Your task to perform on an android device: empty trash in google photos Image 0: 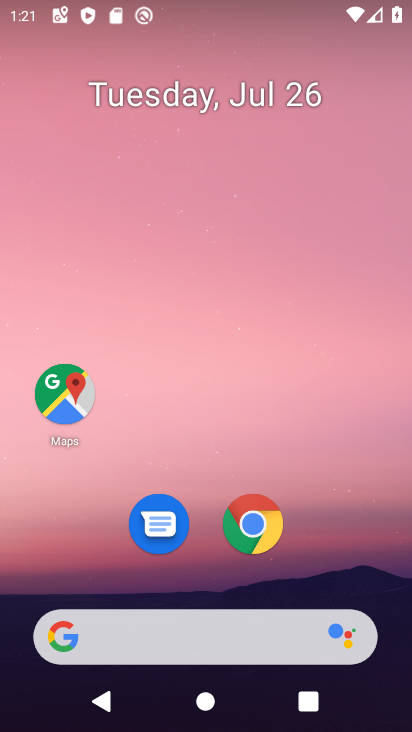
Step 0: press home button
Your task to perform on an android device: empty trash in google photos Image 1: 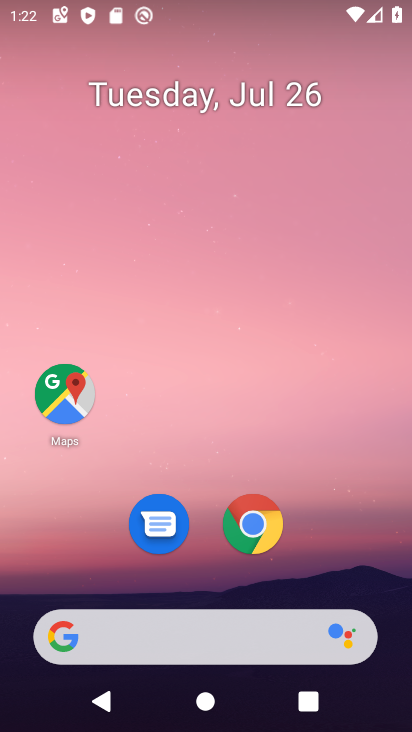
Step 1: drag from (199, 629) to (358, 10)
Your task to perform on an android device: empty trash in google photos Image 2: 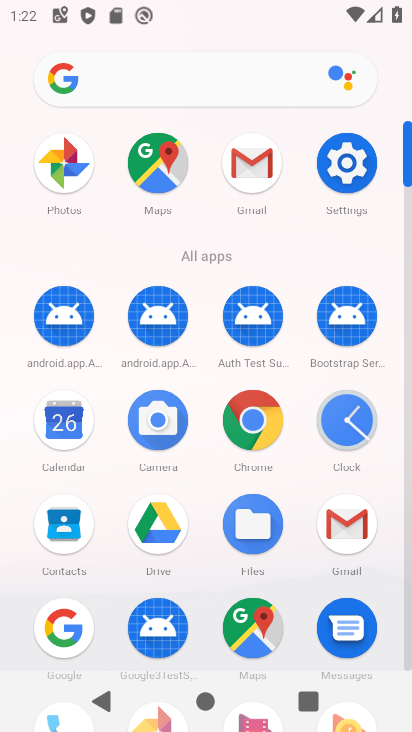
Step 2: drag from (215, 493) to (327, 105)
Your task to perform on an android device: empty trash in google photos Image 3: 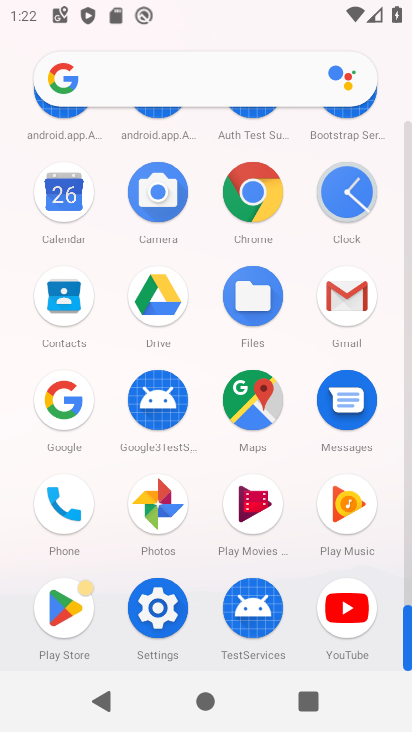
Step 3: click (154, 515)
Your task to perform on an android device: empty trash in google photos Image 4: 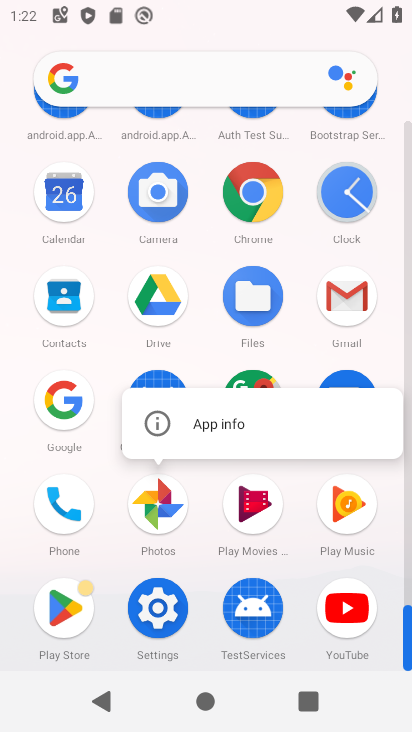
Step 4: click (157, 504)
Your task to perform on an android device: empty trash in google photos Image 5: 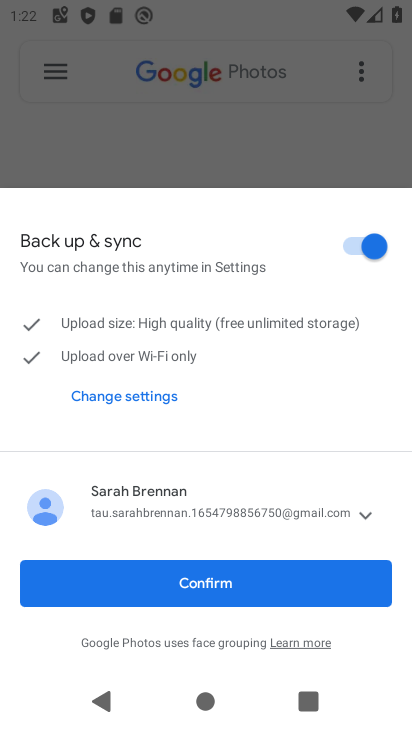
Step 5: click (198, 578)
Your task to perform on an android device: empty trash in google photos Image 6: 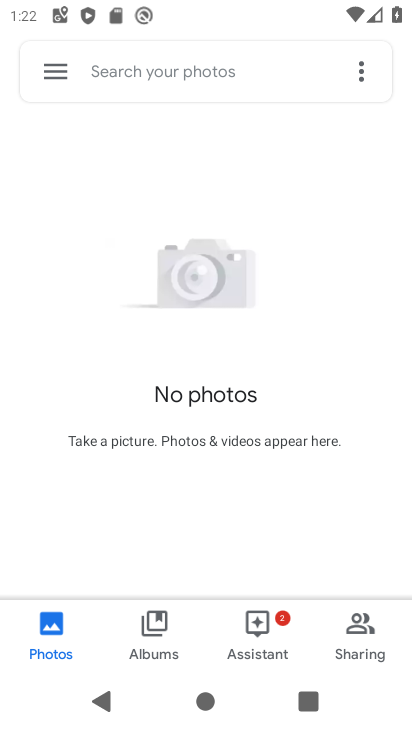
Step 6: click (55, 64)
Your task to perform on an android device: empty trash in google photos Image 7: 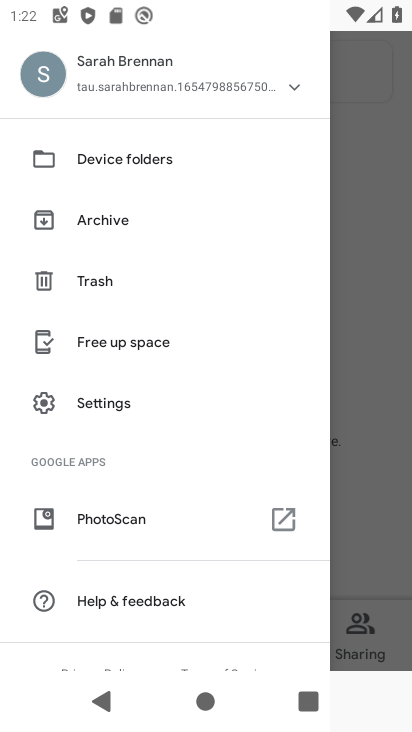
Step 7: click (103, 276)
Your task to perform on an android device: empty trash in google photos Image 8: 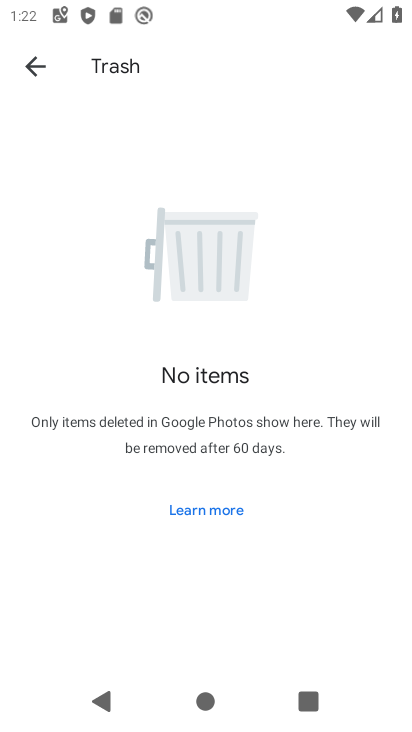
Step 8: task complete